Your task to perform on an android device: Go to ESPN.com Image 0: 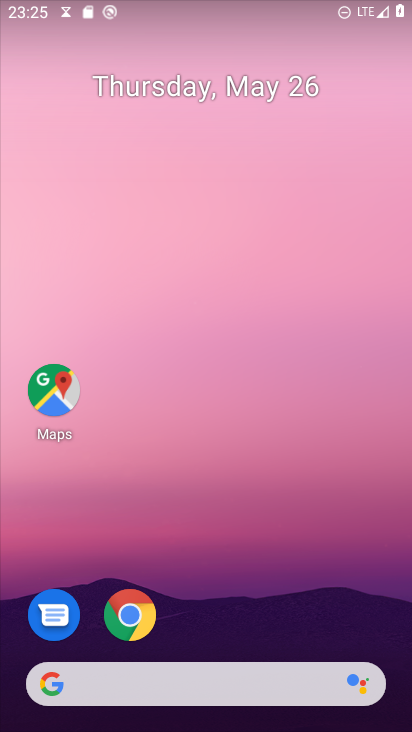
Step 0: click (128, 600)
Your task to perform on an android device: Go to ESPN.com Image 1: 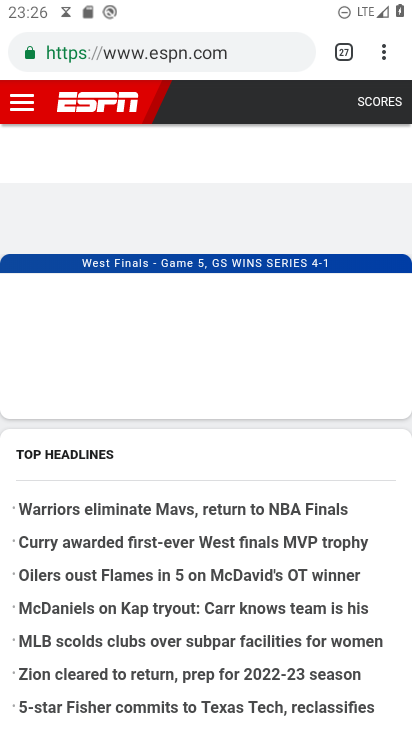
Step 1: task complete